Your task to perform on an android device: turn off improve location accuracy Image 0: 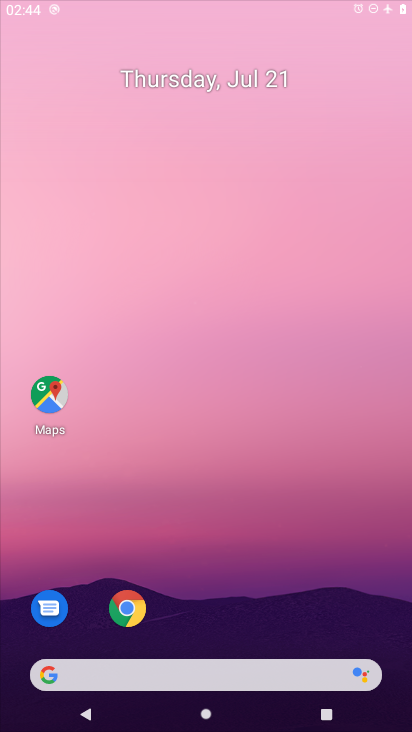
Step 0: press home button
Your task to perform on an android device: turn off improve location accuracy Image 1: 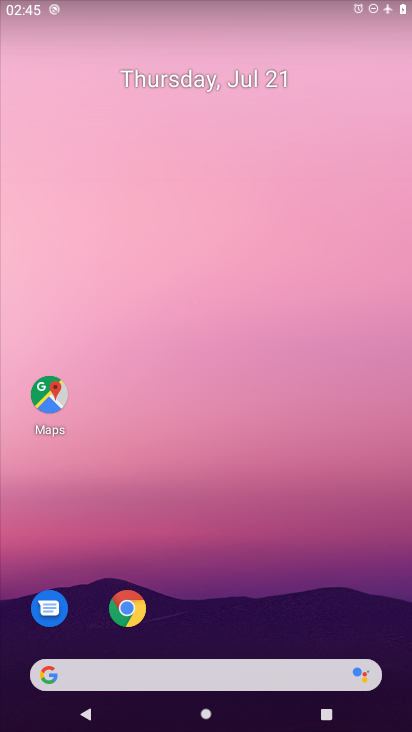
Step 1: drag from (244, 626) to (22, 48)
Your task to perform on an android device: turn off improve location accuracy Image 2: 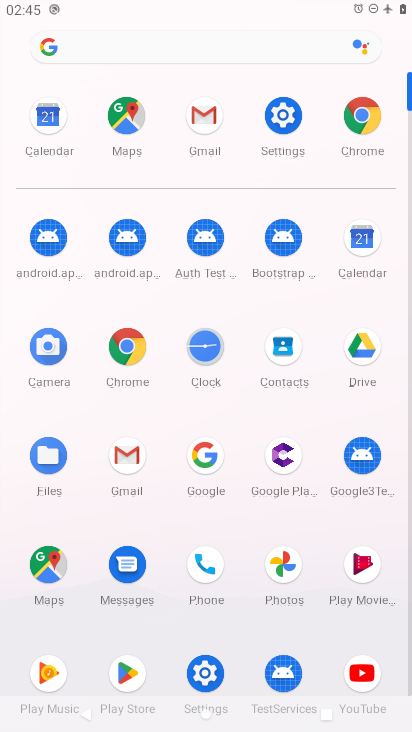
Step 2: click (285, 118)
Your task to perform on an android device: turn off improve location accuracy Image 3: 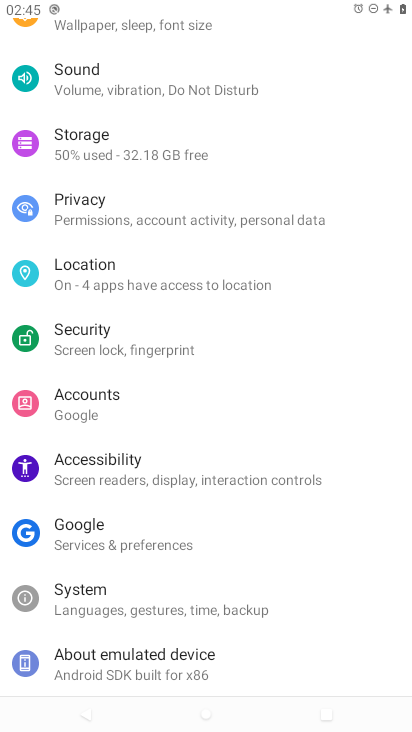
Step 3: click (103, 267)
Your task to perform on an android device: turn off improve location accuracy Image 4: 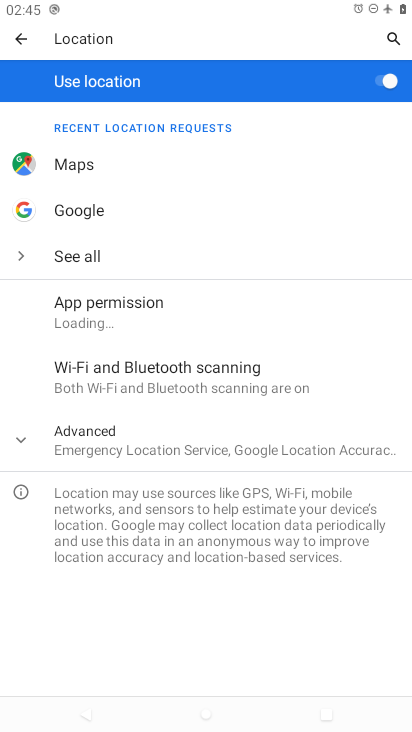
Step 4: click (98, 441)
Your task to perform on an android device: turn off improve location accuracy Image 5: 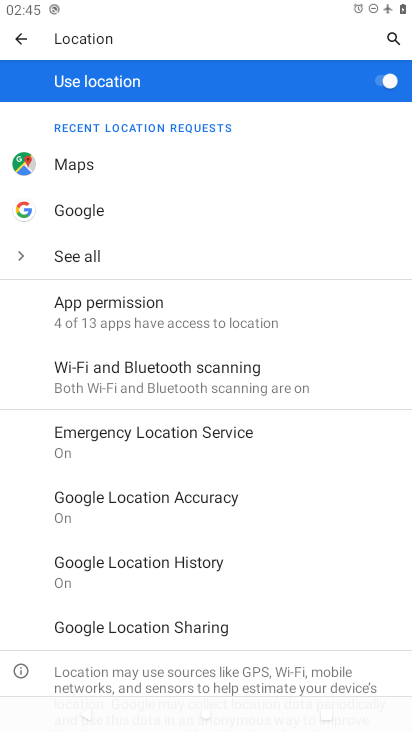
Step 5: click (190, 501)
Your task to perform on an android device: turn off improve location accuracy Image 6: 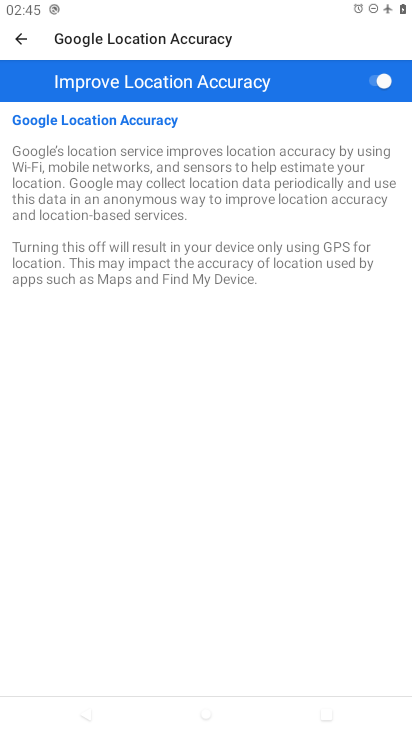
Step 6: click (385, 77)
Your task to perform on an android device: turn off improve location accuracy Image 7: 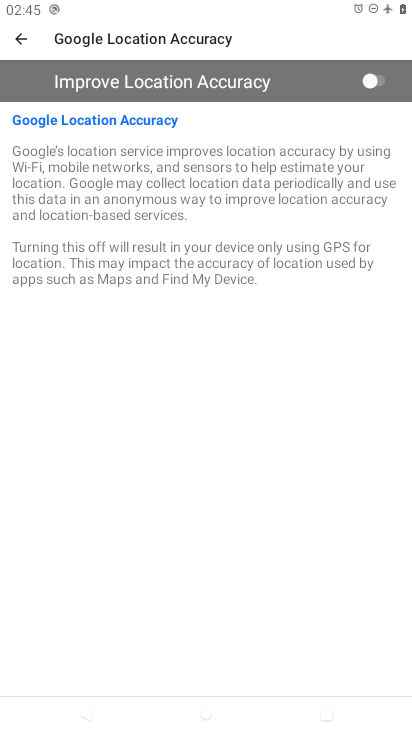
Step 7: task complete